Your task to perform on an android device: Open Youtube and go to "Your channel" Image 0: 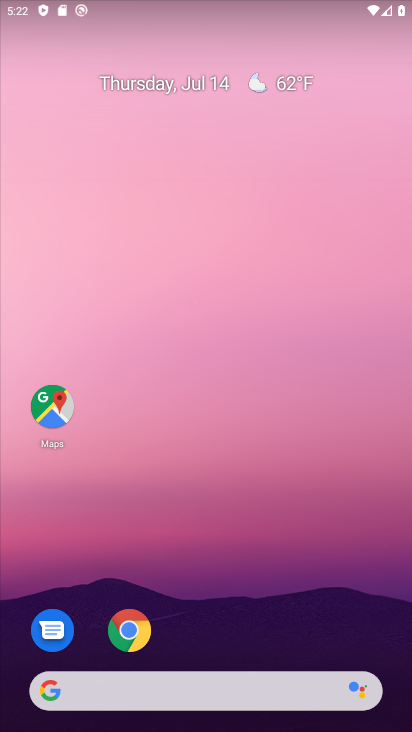
Step 0: drag from (218, 632) to (191, 74)
Your task to perform on an android device: Open Youtube and go to "Your channel" Image 1: 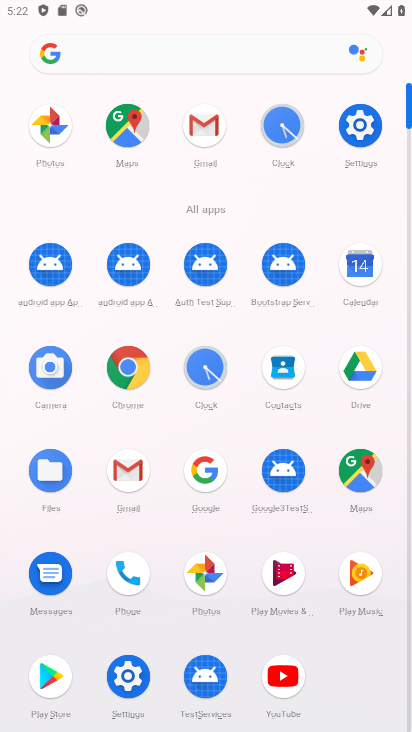
Step 1: click (297, 673)
Your task to perform on an android device: Open Youtube and go to "Your channel" Image 2: 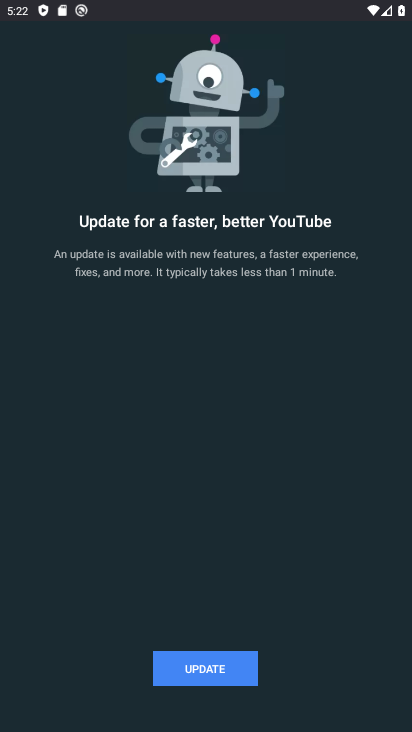
Step 2: click (198, 655)
Your task to perform on an android device: Open Youtube and go to "Your channel" Image 3: 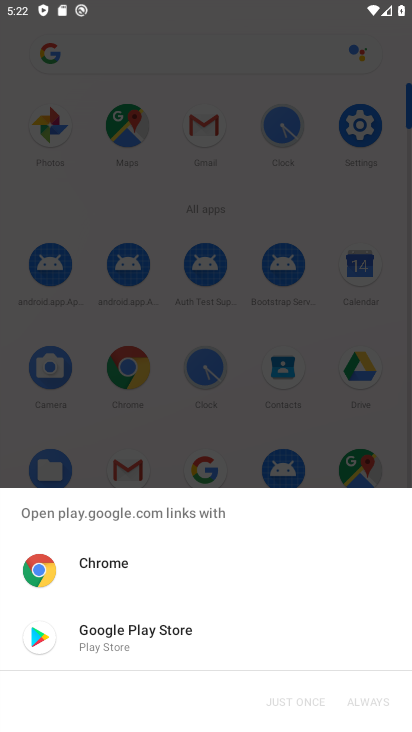
Step 3: click (206, 647)
Your task to perform on an android device: Open Youtube and go to "Your channel" Image 4: 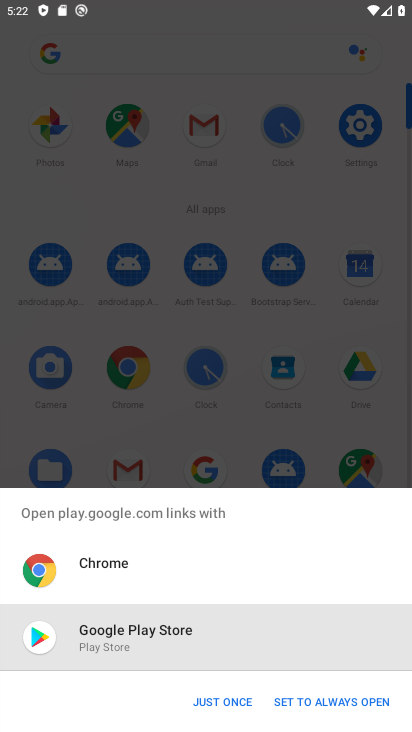
Step 4: click (224, 694)
Your task to perform on an android device: Open Youtube and go to "Your channel" Image 5: 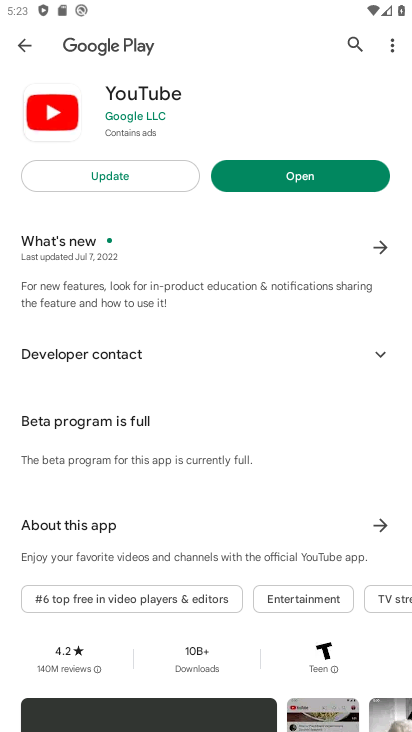
Step 5: click (107, 178)
Your task to perform on an android device: Open Youtube and go to "Your channel" Image 6: 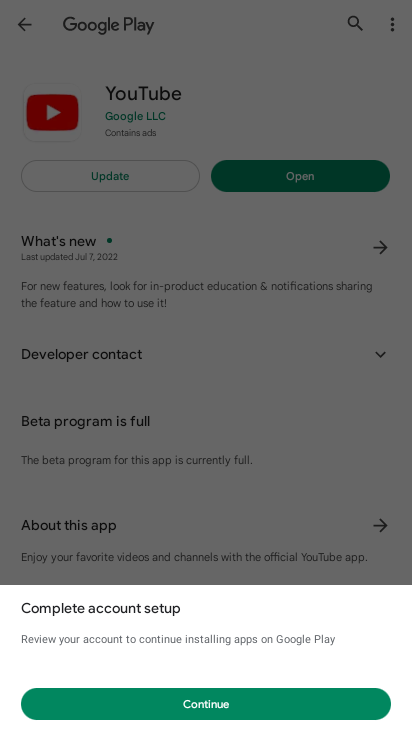
Step 6: click (228, 702)
Your task to perform on an android device: Open Youtube and go to "Your channel" Image 7: 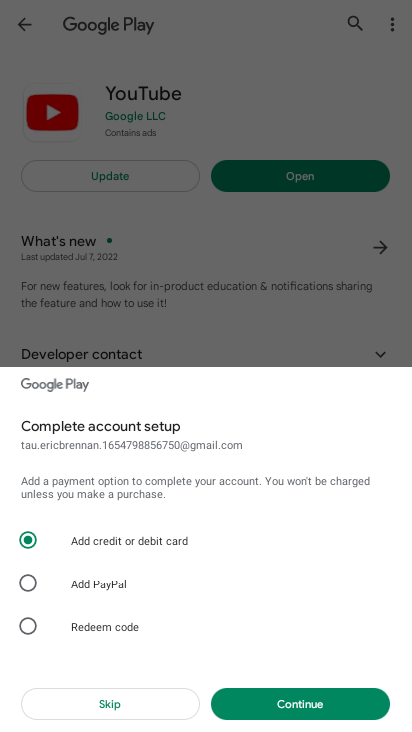
Step 7: click (117, 701)
Your task to perform on an android device: Open Youtube and go to "Your channel" Image 8: 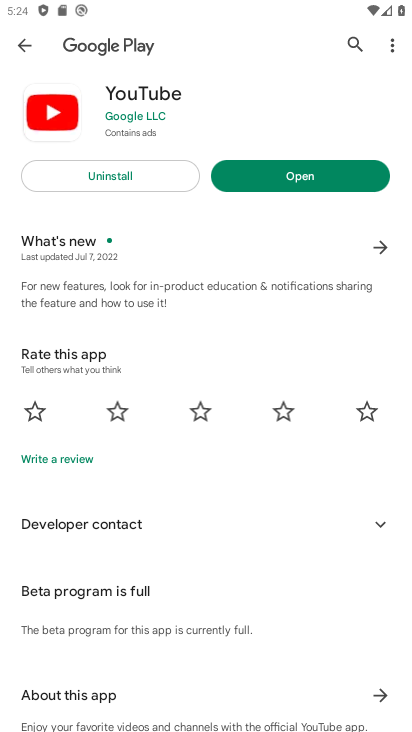
Step 8: click (282, 173)
Your task to perform on an android device: Open Youtube and go to "Your channel" Image 9: 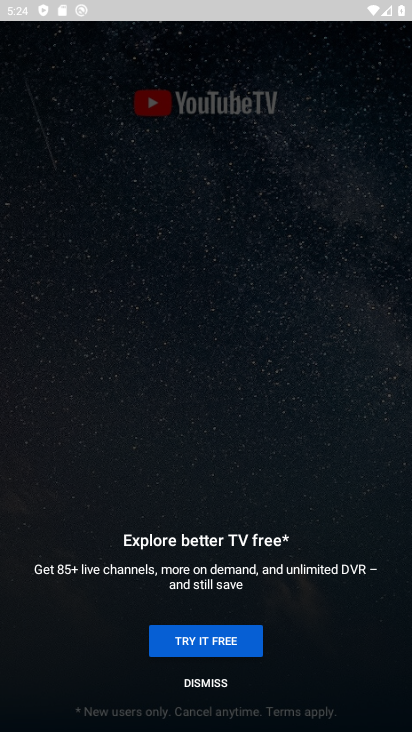
Step 9: click (194, 375)
Your task to perform on an android device: Open Youtube and go to "Your channel" Image 10: 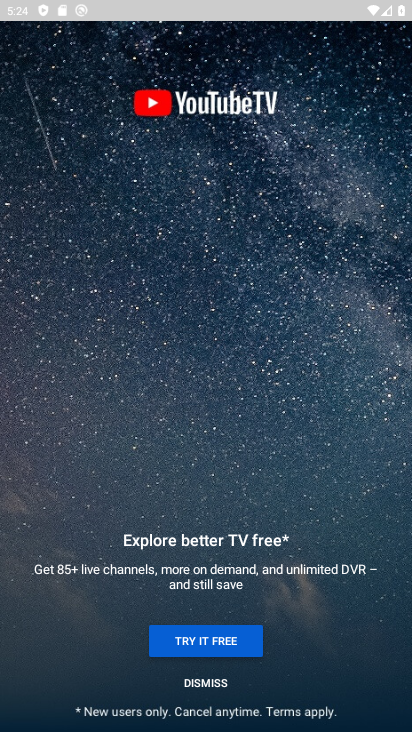
Step 10: click (208, 683)
Your task to perform on an android device: Open Youtube and go to "Your channel" Image 11: 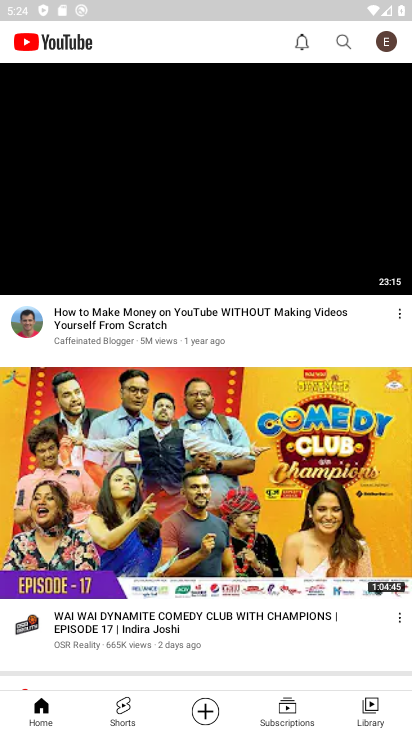
Step 11: click (344, 41)
Your task to perform on an android device: Open Youtube and go to "Your channel" Image 12: 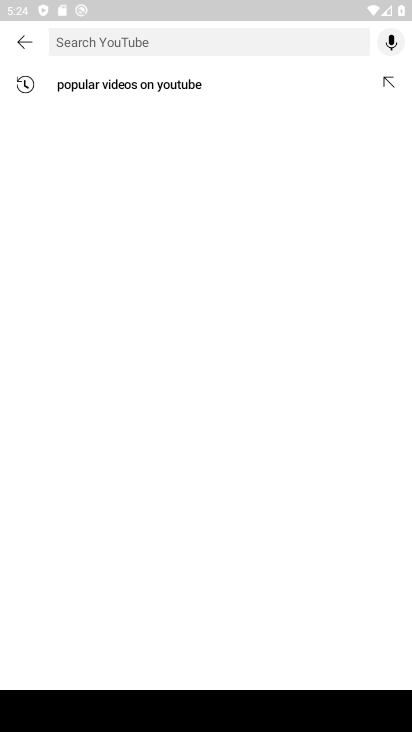
Step 12: type "your channel"
Your task to perform on an android device: Open Youtube and go to "Your channel" Image 13: 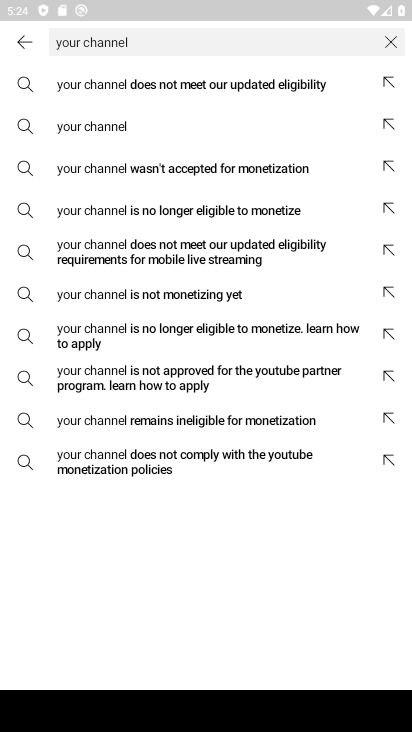
Step 13: click (122, 138)
Your task to perform on an android device: Open Youtube and go to "Your channel" Image 14: 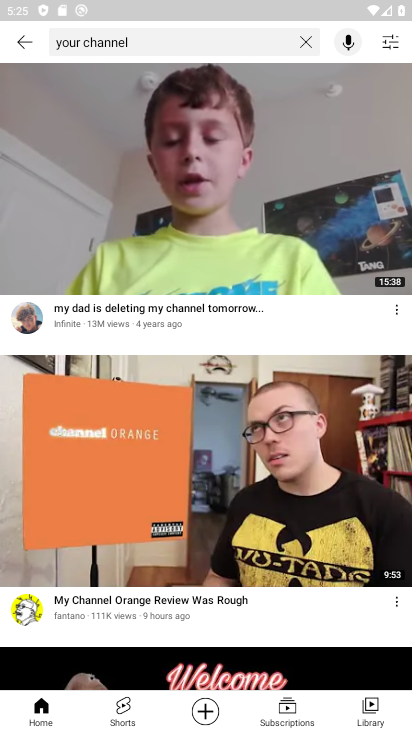
Step 14: task complete